Your task to perform on an android device: What's the weather? Image 0: 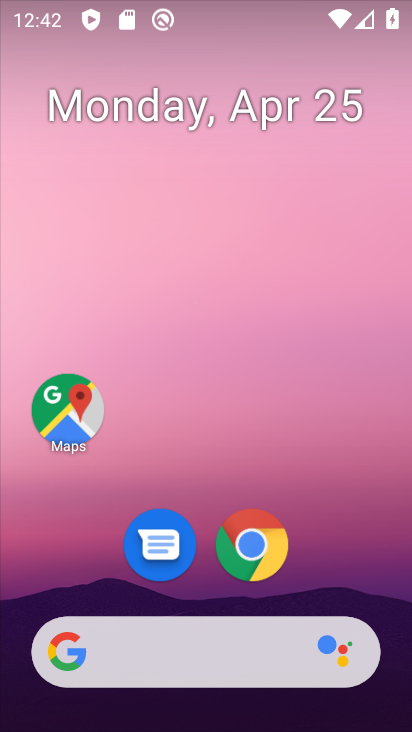
Step 0: drag from (334, 503) to (307, 15)
Your task to perform on an android device: What's the weather? Image 1: 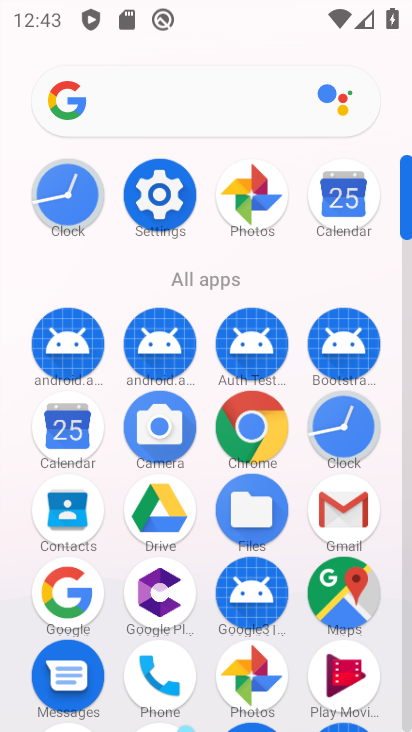
Step 1: click (83, 588)
Your task to perform on an android device: What's the weather? Image 2: 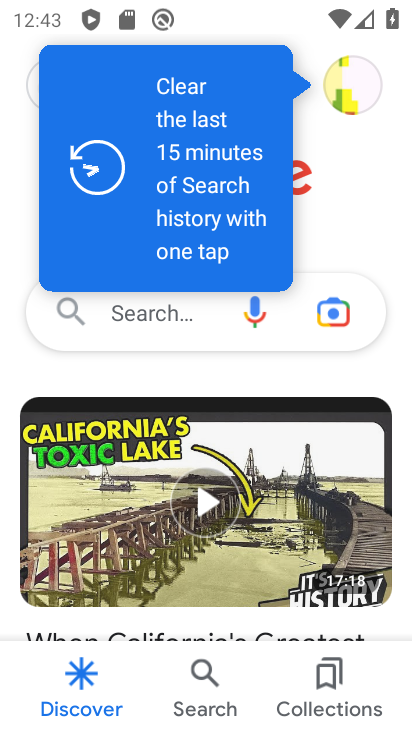
Step 2: click (200, 306)
Your task to perform on an android device: What's the weather? Image 3: 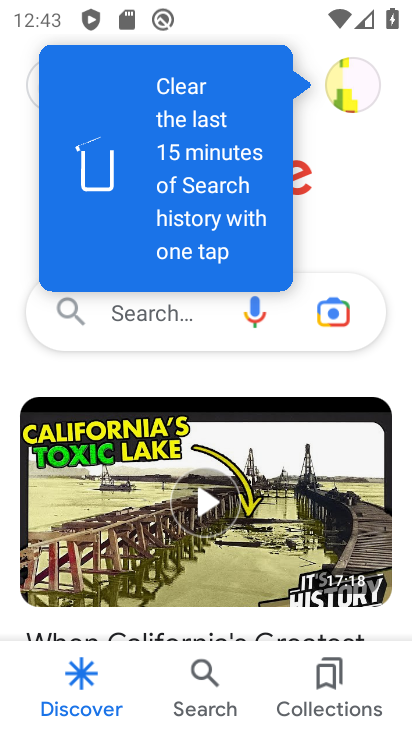
Step 3: click (200, 306)
Your task to perform on an android device: What's the weather? Image 4: 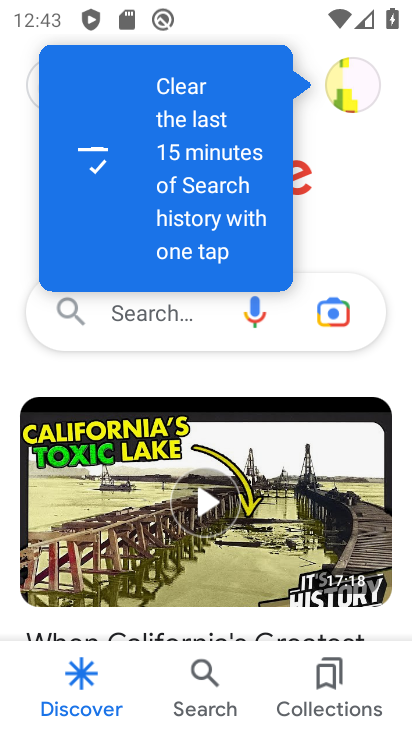
Step 4: click (110, 336)
Your task to perform on an android device: What's the weather? Image 5: 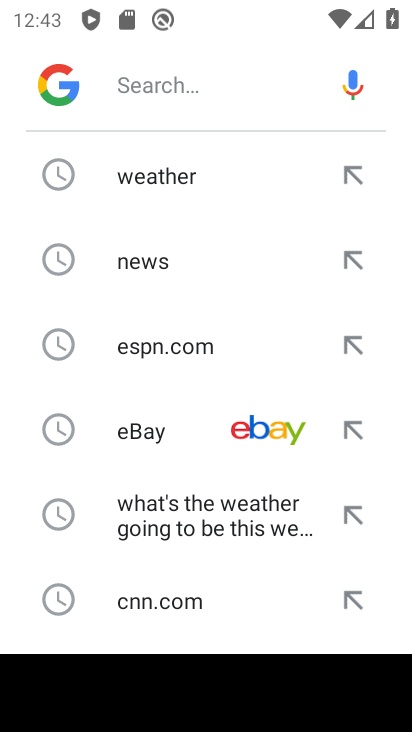
Step 5: click (174, 184)
Your task to perform on an android device: What's the weather? Image 6: 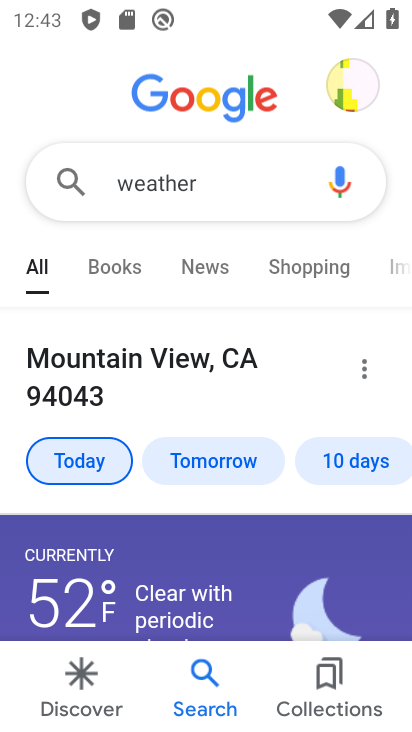
Step 6: task complete